Your task to perform on an android device: Go to Maps Image 0: 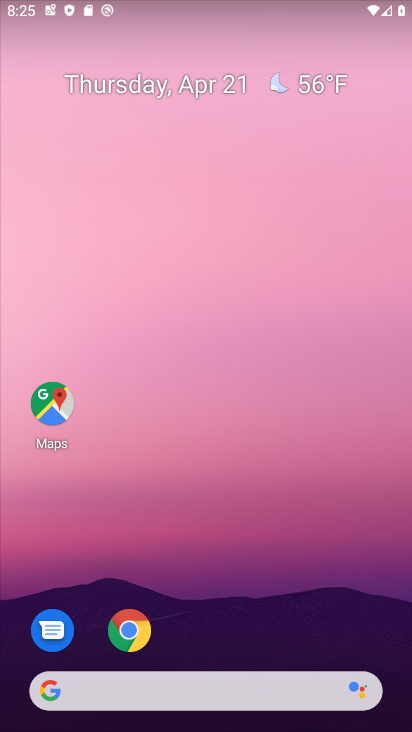
Step 0: click (53, 408)
Your task to perform on an android device: Go to Maps Image 1: 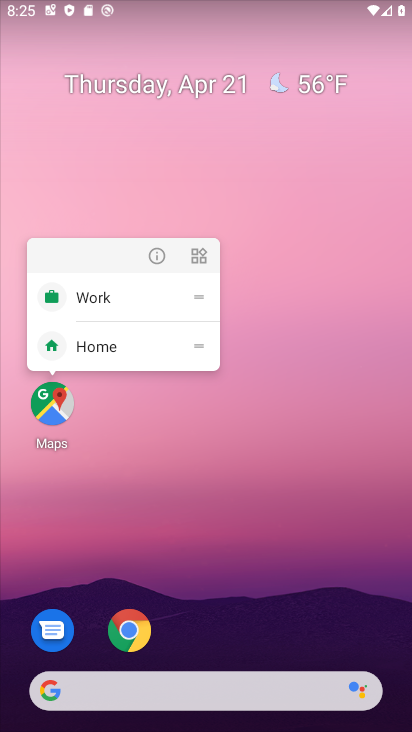
Step 1: click (60, 406)
Your task to perform on an android device: Go to Maps Image 2: 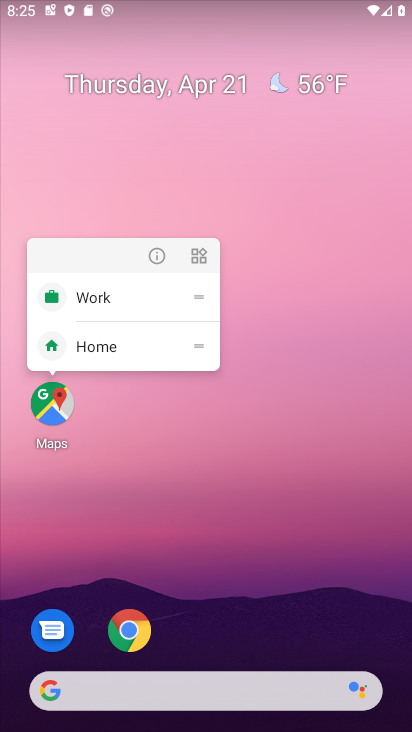
Step 2: click (59, 410)
Your task to perform on an android device: Go to Maps Image 3: 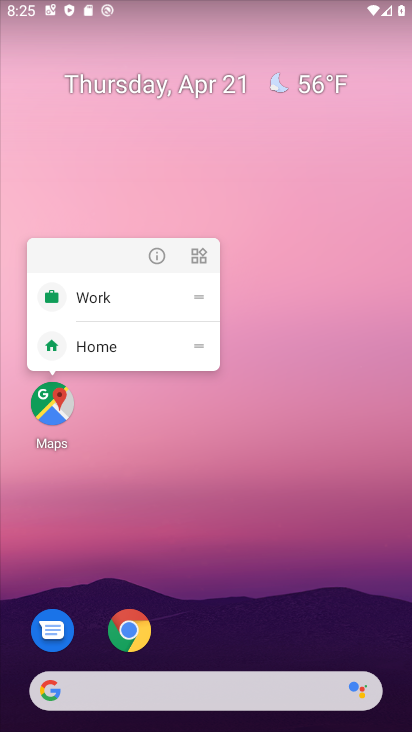
Step 3: click (62, 416)
Your task to perform on an android device: Go to Maps Image 4: 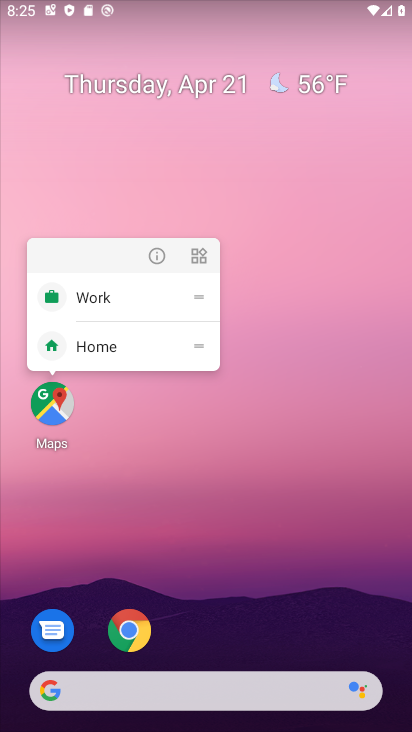
Step 4: click (66, 409)
Your task to perform on an android device: Go to Maps Image 5: 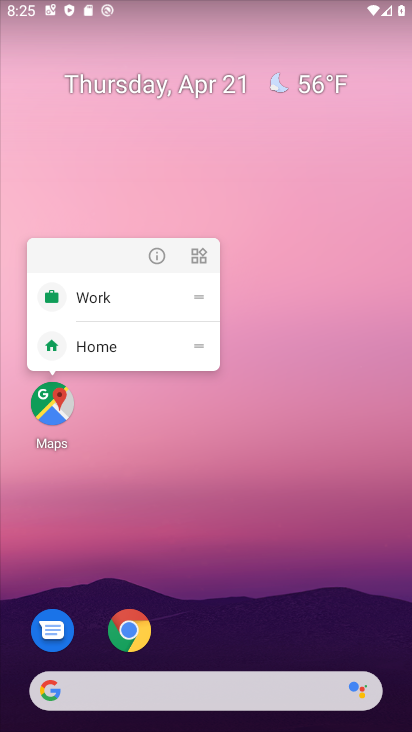
Step 5: click (67, 409)
Your task to perform on an android device: Go to Maps Image 6: 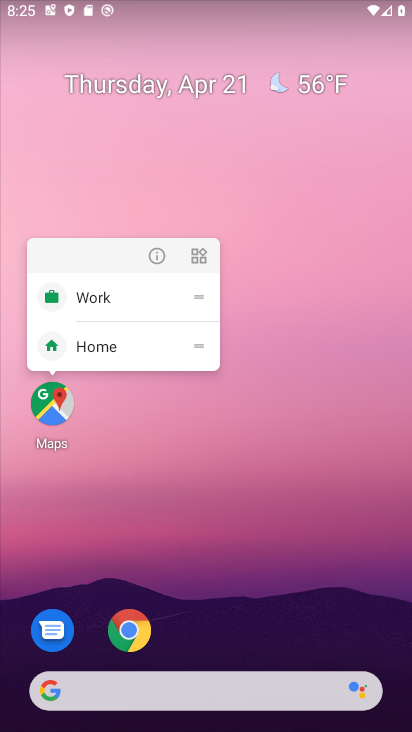
Step 6: click (68, 402)
Your task to perform on an android device: Go to Maps Image 7: 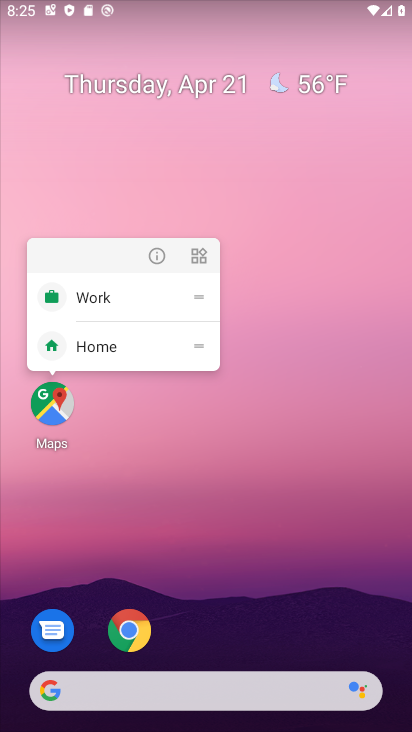
Step 7: click (50, 389)
Your task to perform on an android device: Go to Maps Image 8: 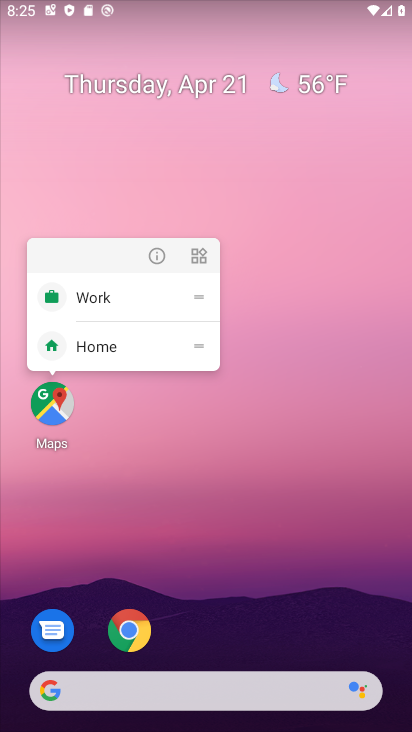
Step 8: click (55, 384)
Your task to perform on an android device: Go to Maps Image 9: 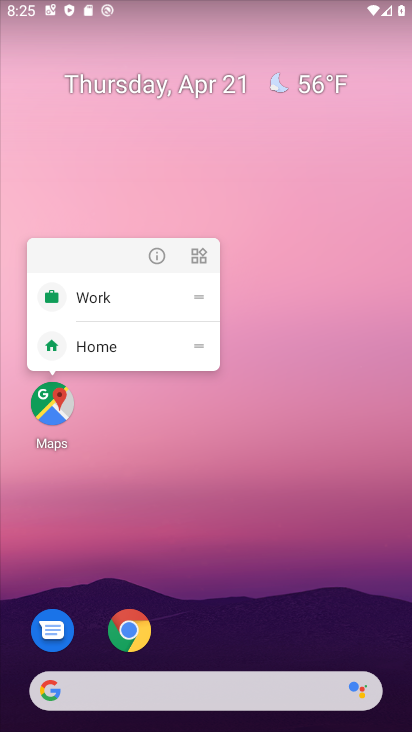
Step 9: click (67, 398)
Your task to perform on an android device: Go to Maps Image 10: 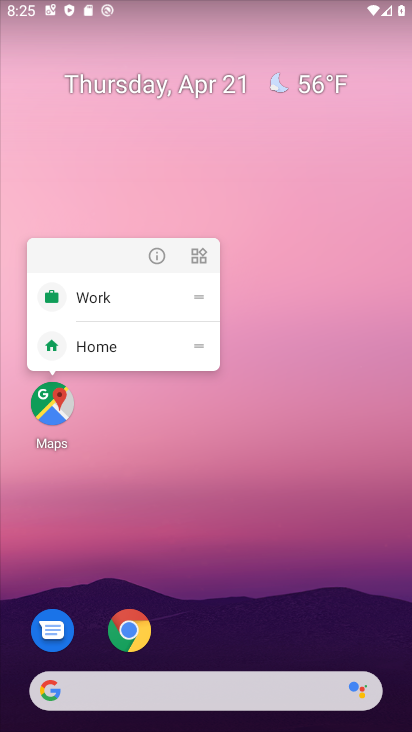
Step 10: click (65, 407)
Your task to perform on an android device: Go to Maps Image 11: 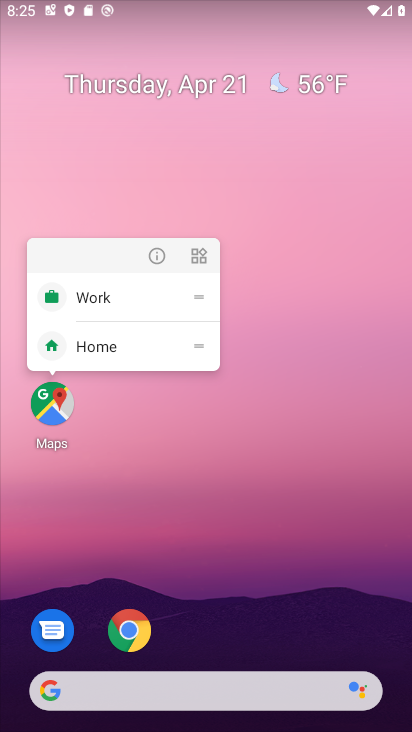
Step 11: click (66, 400)
Your task to perform on an android device: Go to Maps Image 12: 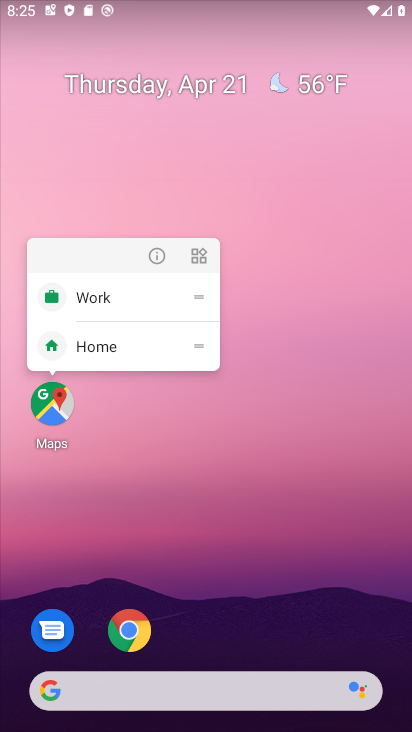
Step 12: click (66, 399)
Your task to perform on an android device: Go to Maps Image 13: 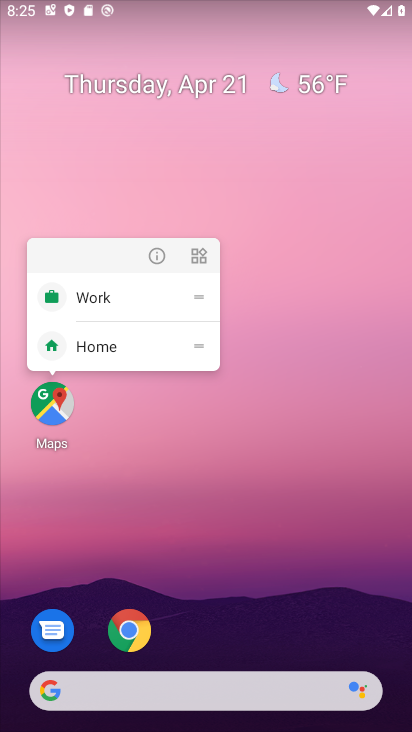
Step 13: click (65, 400)
Your task to perform on an android device: Go to Maps Image 14: 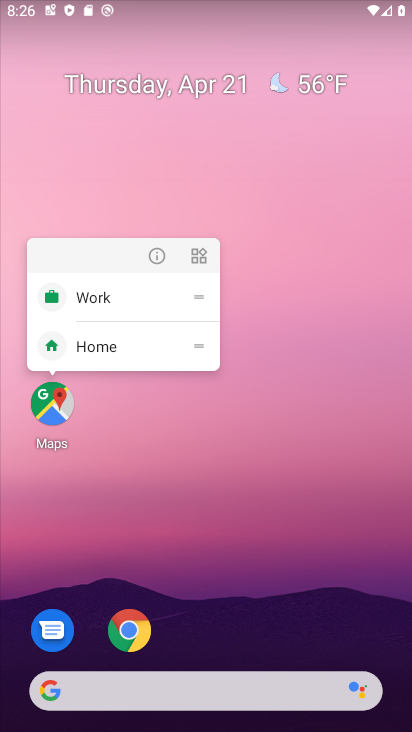
Step 14: click (61, 400)
Your task to perform on an android device: Go to Maps Image 15: 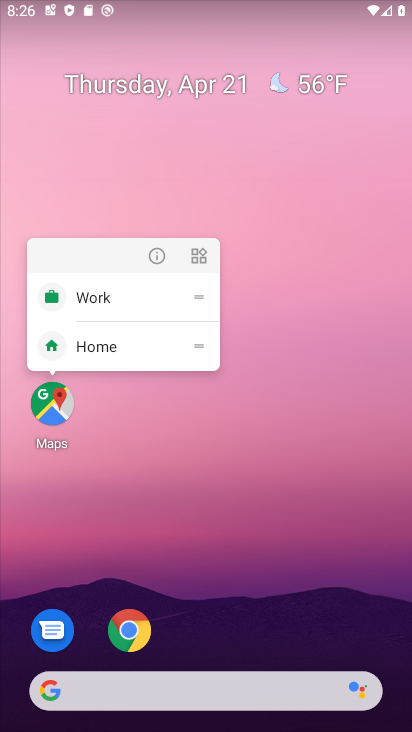
Step 15: click (57, 406)
Your task to perform on an android device: Go to Maps Image 16: 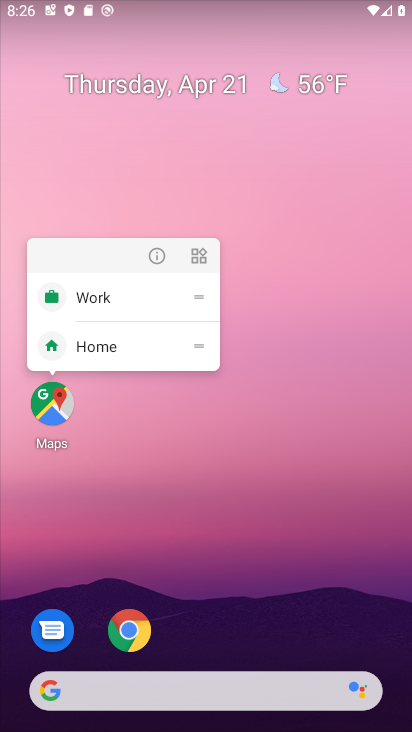
Step 16: click (65, 414)
Your task to perform on an android device: Go to Maps Image 17: 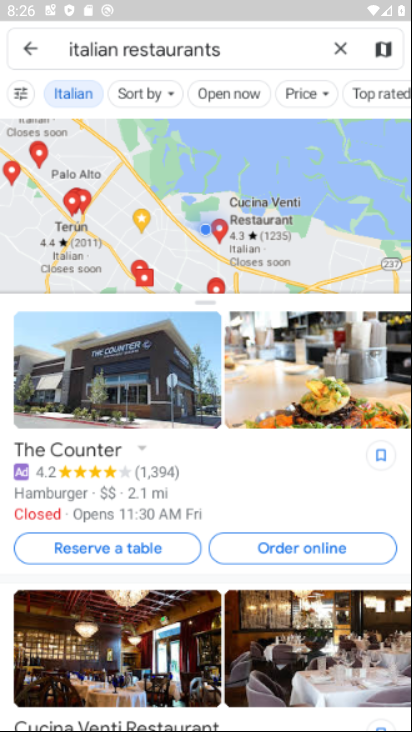
Step 17: click (65, 414)
Your task to perform on an android device: Go to Maps Image 18: 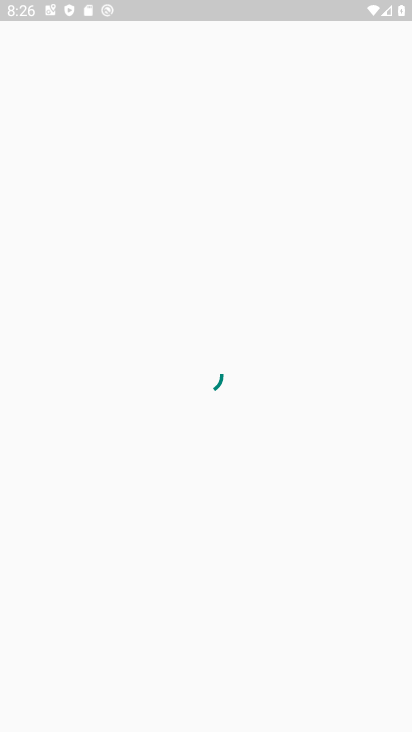
Step 18: task complete